Your task to perform on an android device: change timer sound Image 0: 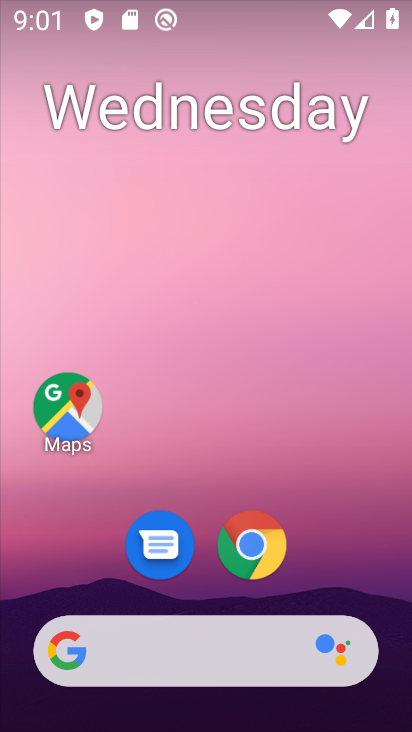
Step 0: drag from (377, 570) to (344, 131)
Your task to perform on an android device: change timer sound Image 1: 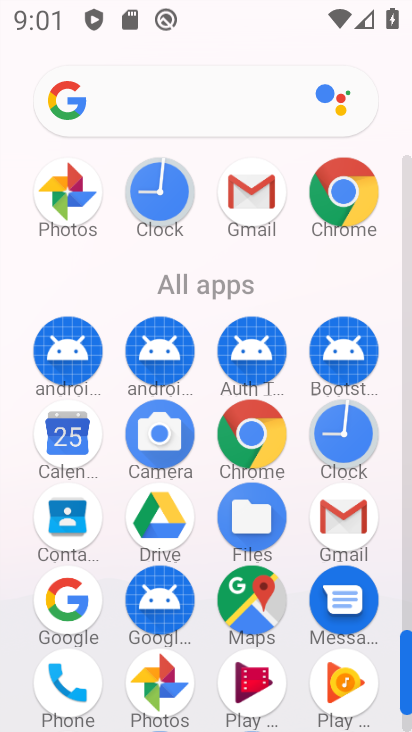
Step 1: click (168, 179)
Your task to perform on an android device: change timer sound Image 2: 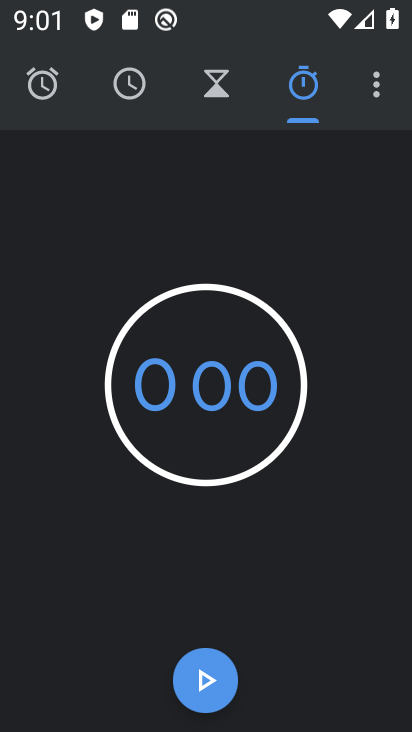
Step 2: click (368, 102)
Your task to perform on an android device: change timer sound Image 3: 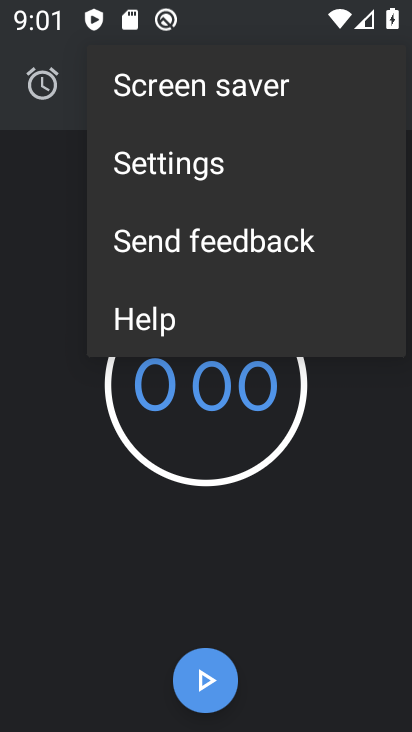
Step 3: click (325, 164)
Your task to perform on an android device: change timer sound Image 4: 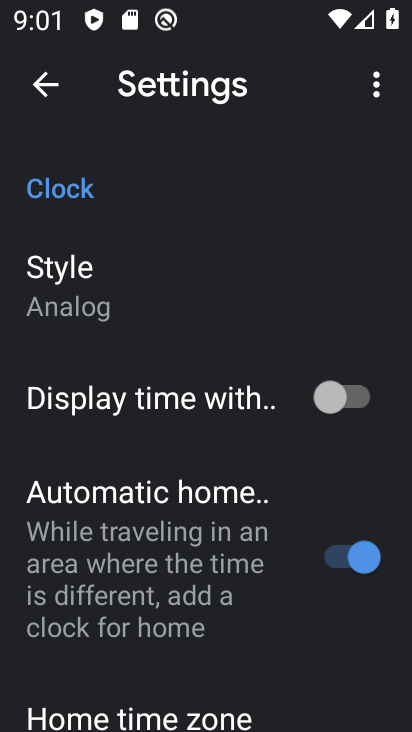
Step 4: drag from (259, 661) to (230, 99)
Your task to perform on an android device: change timer sound Image 5: 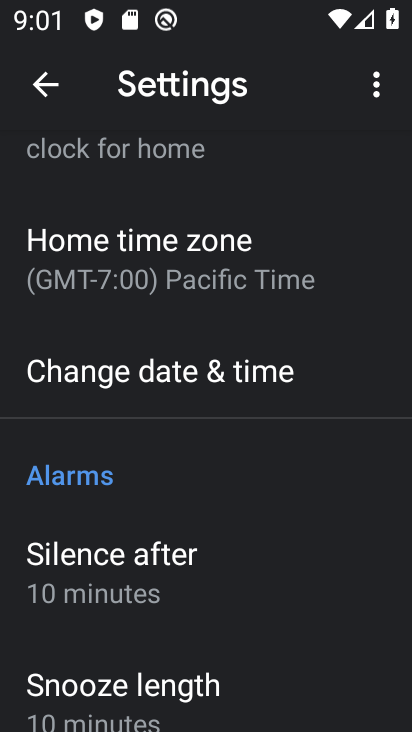
Step 5: drag from (215, 653) to (224, 279)
Your task to perform on an android device: change timer sound Image 6: 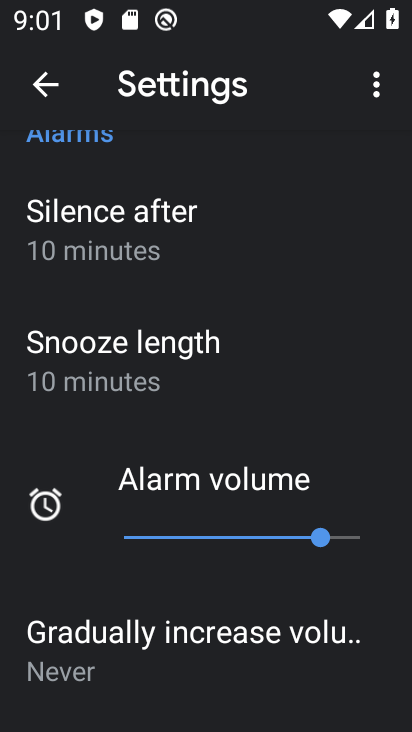
Step 6: drag from (222, 575) to (227, 185)
Your task to perform on an android device: change timer sound Image 7: 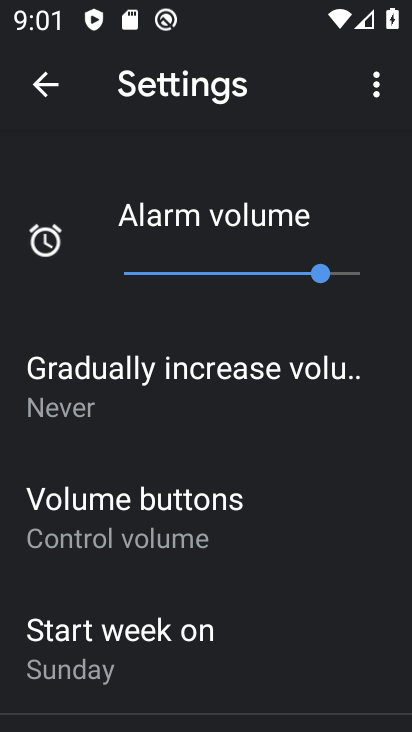
Step 7: drag from (199, 593) to (178, 185)
Your task to perform on an android device: change timer sound Image 8: 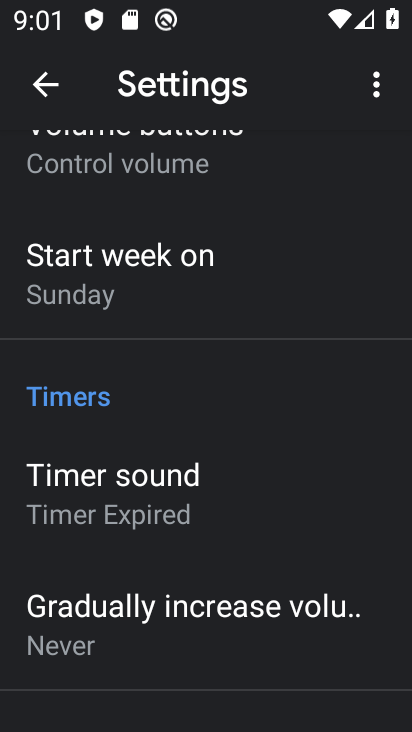
Step 8: click (217, 521)
Your task to perform on an android device: change timer sound Image 9: 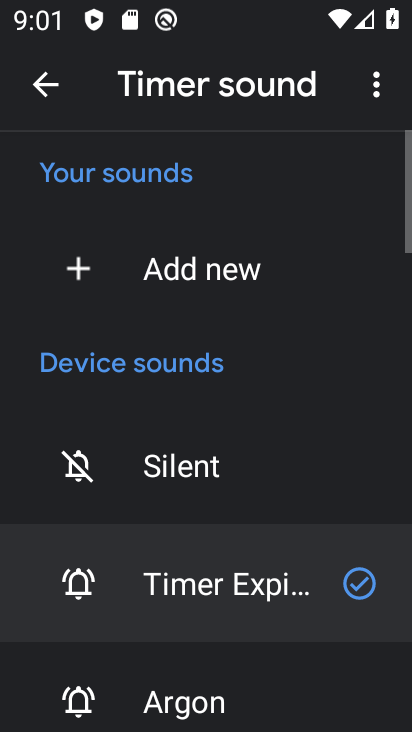
Step 9: click (203, 678)
Your task to perform on an android device: change timer sound Image 10: 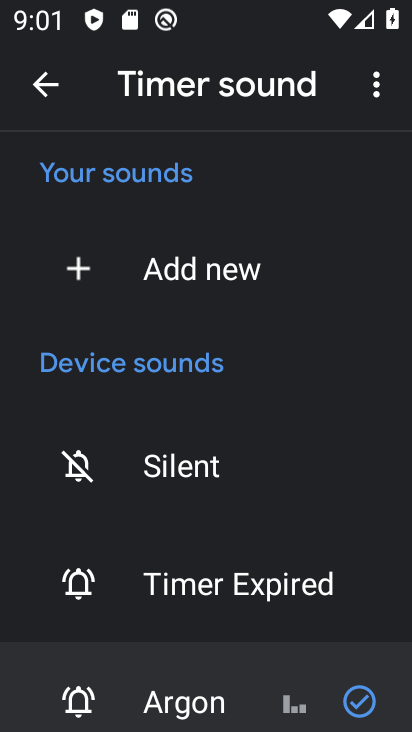
Step 10: task complete